Your task to perform on an android device: Clear all items from cart on newegg.com. Search for "asus zenbook" on newegg.com, select the first entry, add it to the cart, then select checkout. Image 0: 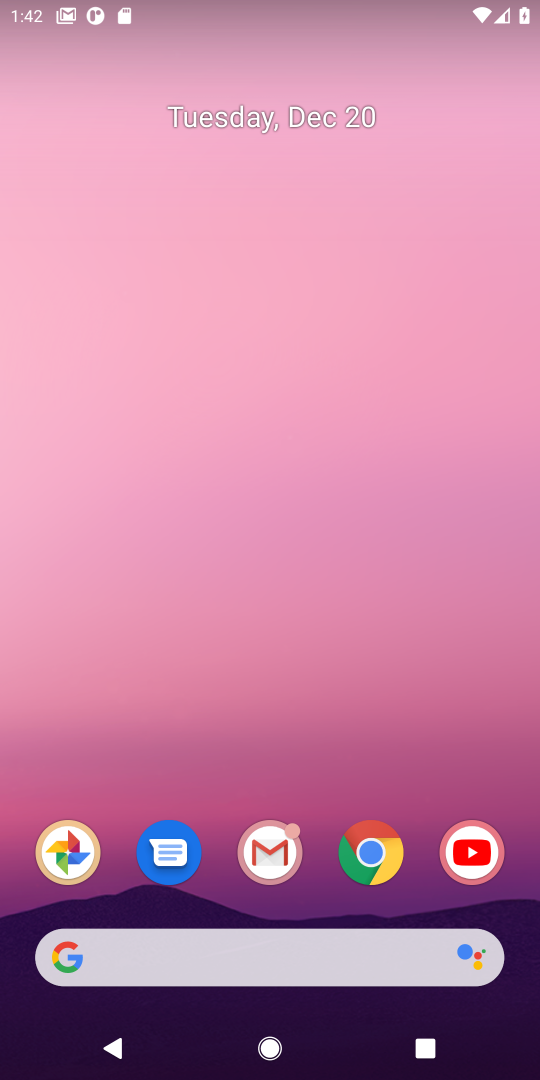
Step 0: click (372, 848)
Your task to perform on an android device: Clear all items from cart on newegg.com. Search for "asus zenbook" on newegg.com, select the first entry, add it to the cart, then select checkout. Image 1: 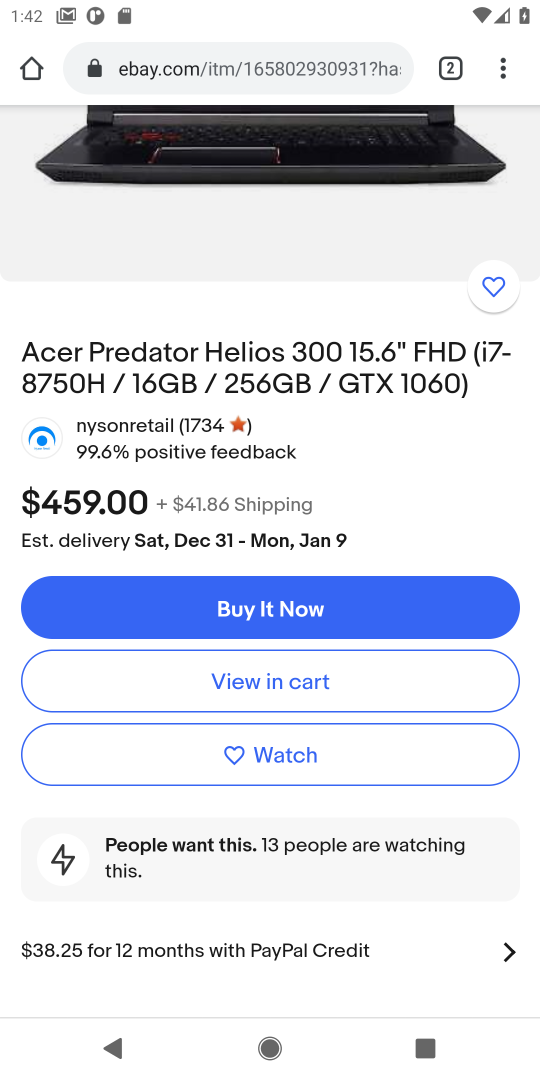
Step 1: click (176, 70)
Your task to perform on an android device: Clear all items from cart on newegg.com. Search for "asus zenbook" on newegg.com, select the first entry, add it to the cart, then select checkout. Image 2: 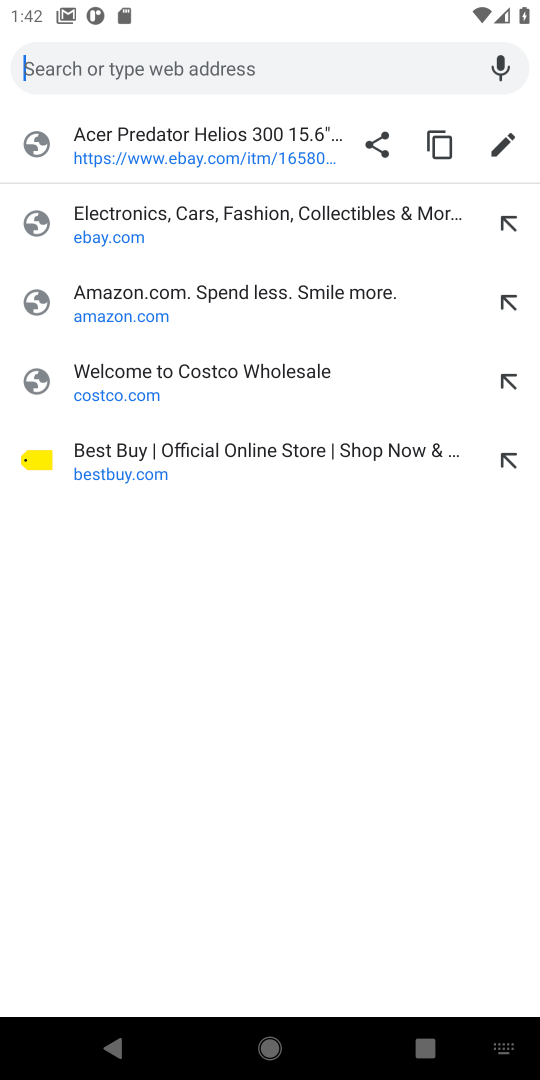
Step 2: type "newegg.com"
Your task to perform on an android device: Clear all items from cart on newegg.com. Search for "asus zenbook" on newegg.com, select the first entry, add it to the cart, then select checkout. Image 3: 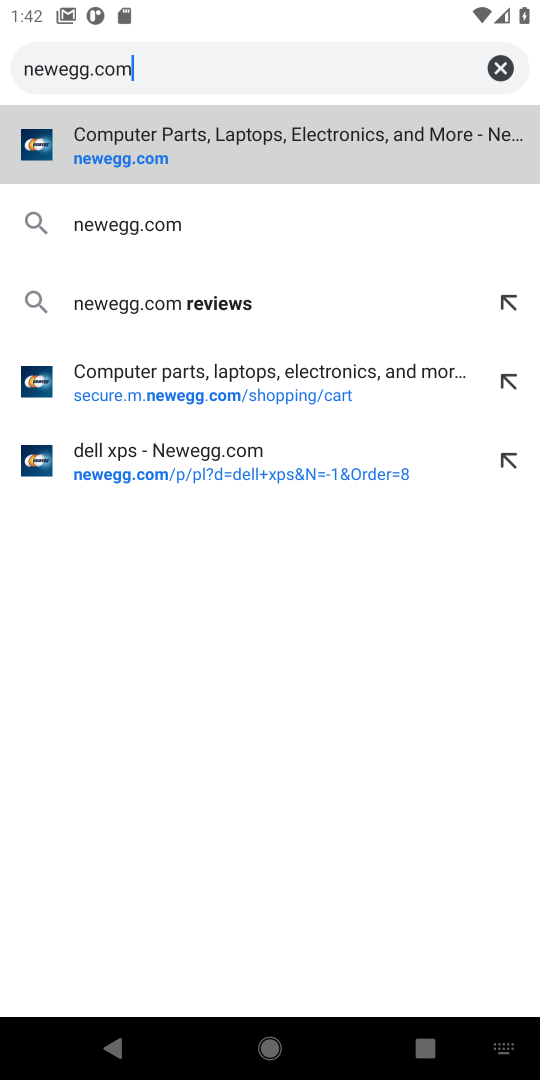
Step 3: click (102, 152)
Your task to perform on an android device: Clear all items from cart on newegg.com. Search for "asus zenbook" on newegg.com, select the first entry, add it to the cart, then select checkout. Image 4: 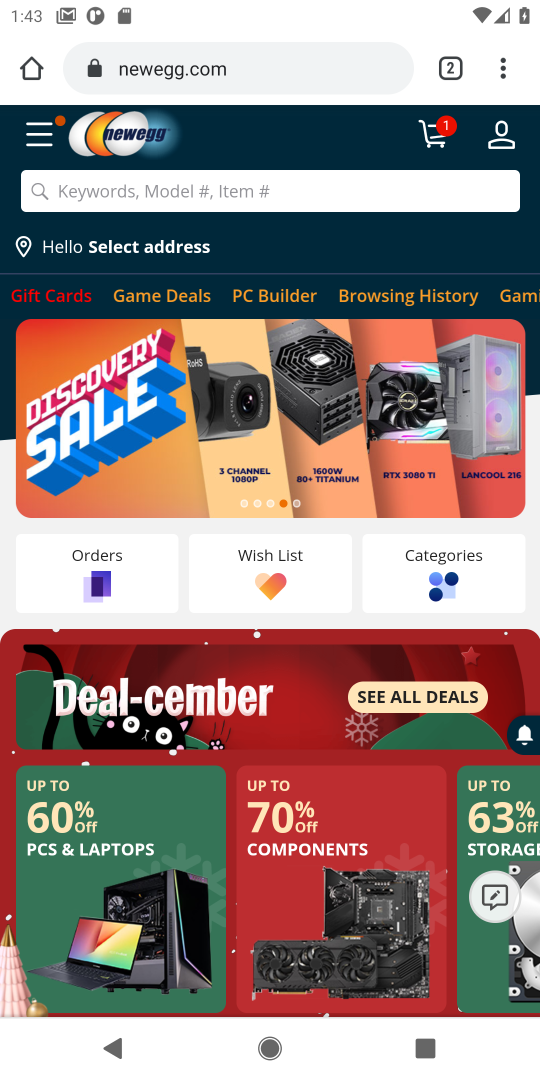
Step 4: click (436, 138)
Your task to perform on an android device: Clear all items from cart on newegg.com. Search for "asus zenbook" on newegg.com, select the first entry, add it to the cart, then select checkout. Image 5: 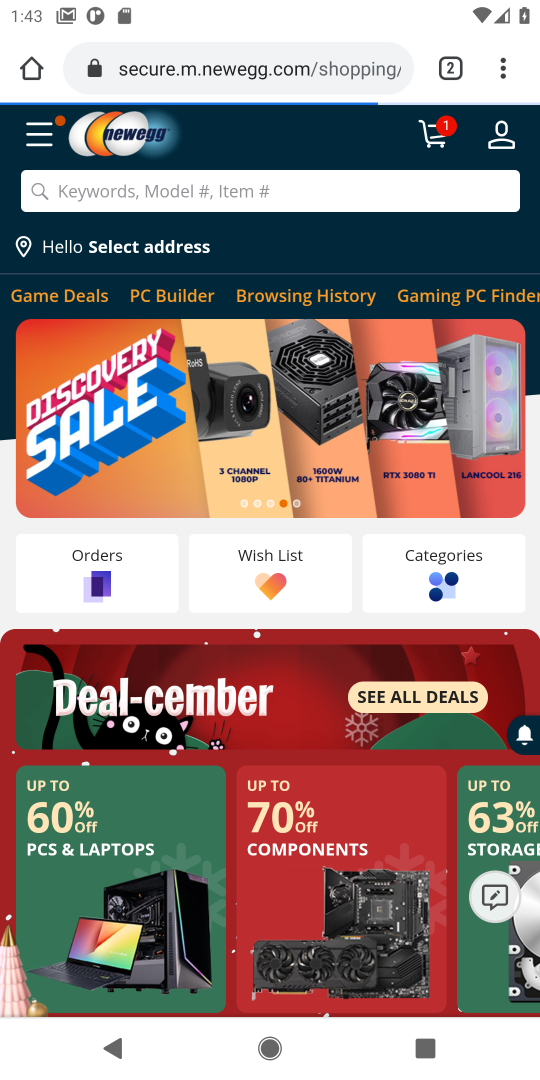
Step 5: click (436, 138)
Your task to perform on an android device: Clear all items from cart on newegg.com. Search for "asus zenbook" on newegg.com, select the first entry, add it to the cart, then select checkout. Image 6: 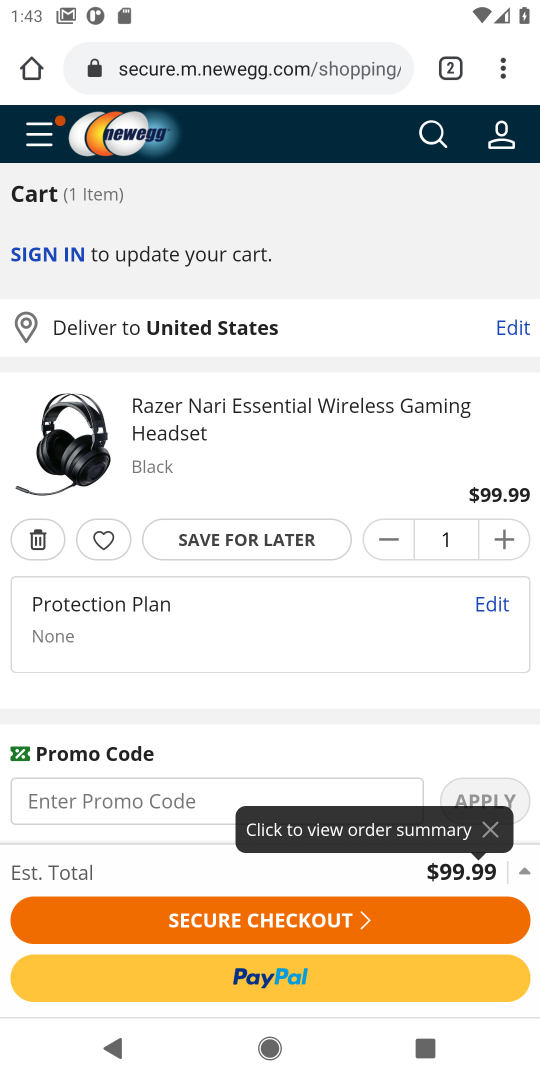
Step 6: click (36, 548)
Your task to perform on an android device: Clear all items from cart on newegg.com. Search for "asus zenbook" on newegg.com, select the first entry, add it to the cart, then select checkout. Image 7: 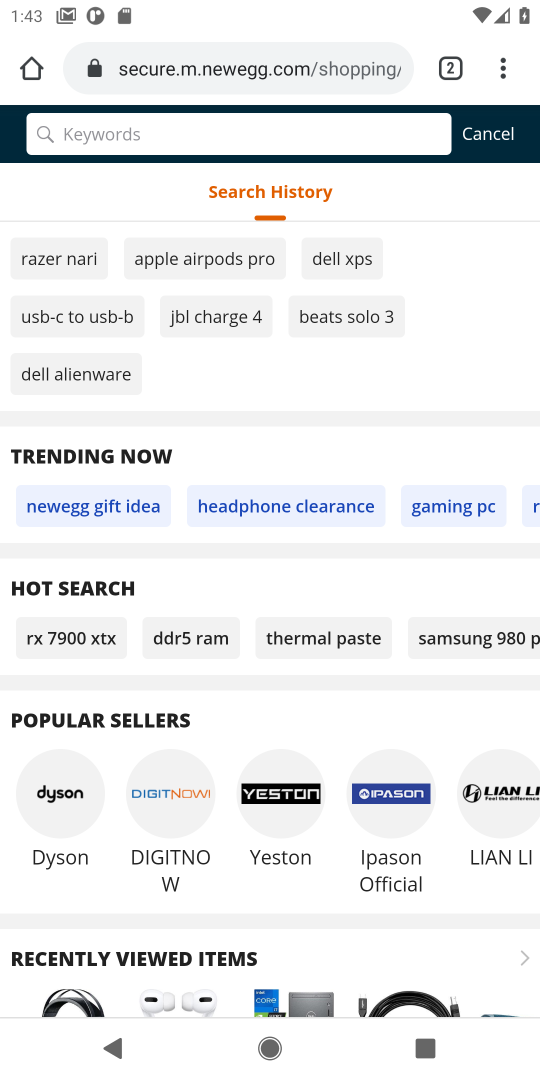
Step 7: click (136, 134)
Your task to perform on an android device: Clear all items from cart on newegg.com. Search for "asus zenbook" on newegg.com, select the first entry, add it to the cart, then select checkout. Image 8: 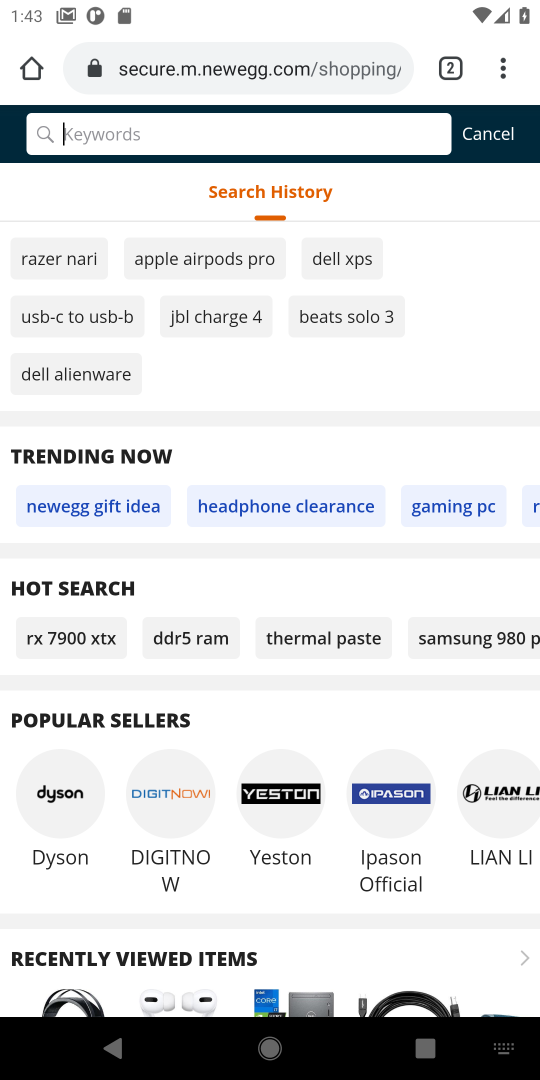
Step 8: type "asus zenbook"
Your task to perform on an android device: Clear all items from cart on newegg.com. Search for "asus zenbook" on newegg.com, select the first entry, add it to the cart, then select checkout. Image 9: 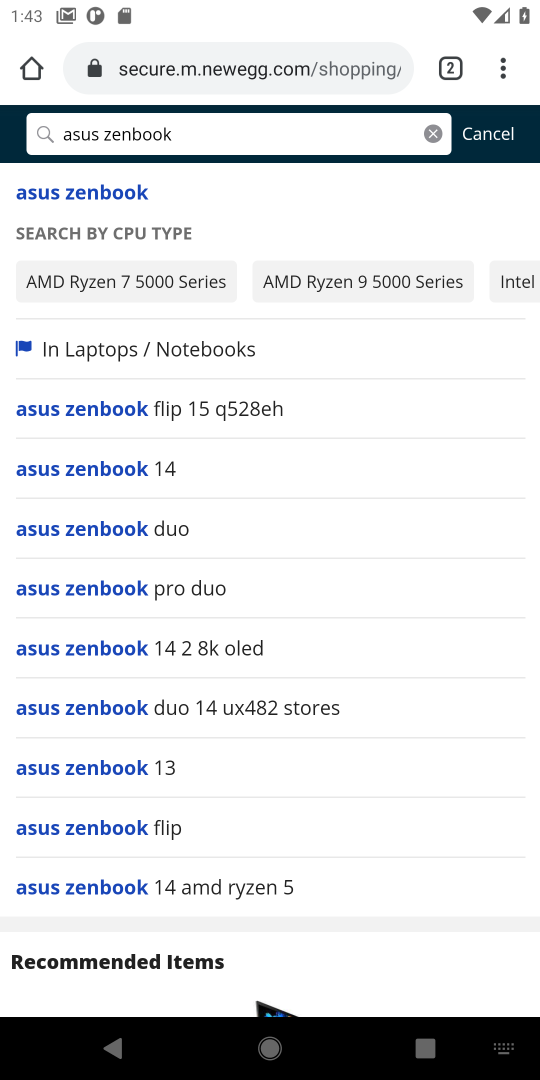
Step 9: click (92, 206)
Your task to perform on an android device: Clear all items from cart on newegg.com. Search for "asus zenbook" on newegg.com, select the first entry, add it to the cart, then select checkout. Image 10: 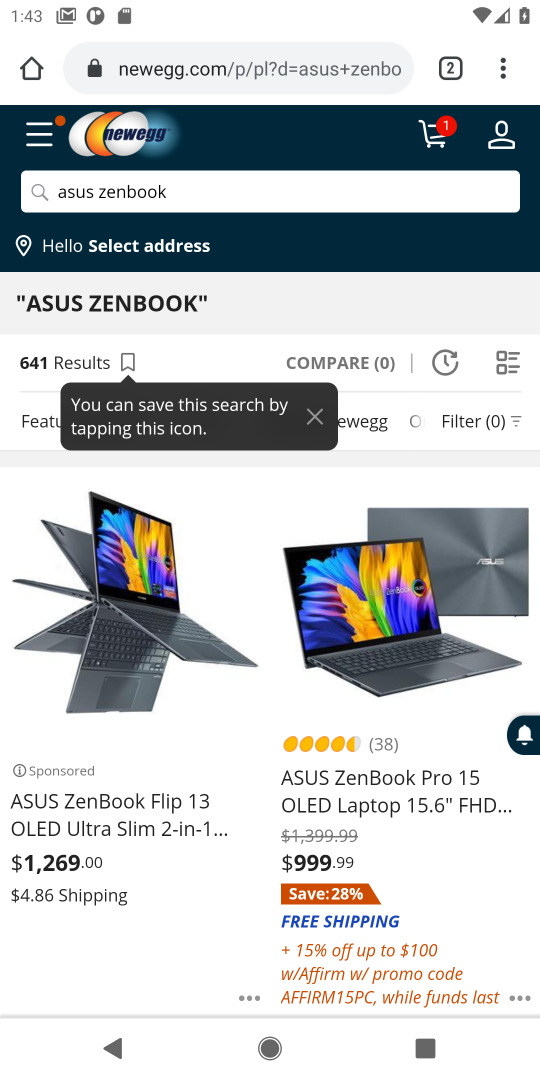
Step 10: drag from (102, 841) to (94, 702)
Your task to perform on an android device: Clear all items from cart on newegg.com. Search for "asus zenbook" on newegg.com, select the first entry, add it to the cart, then select checkout. Image 11: 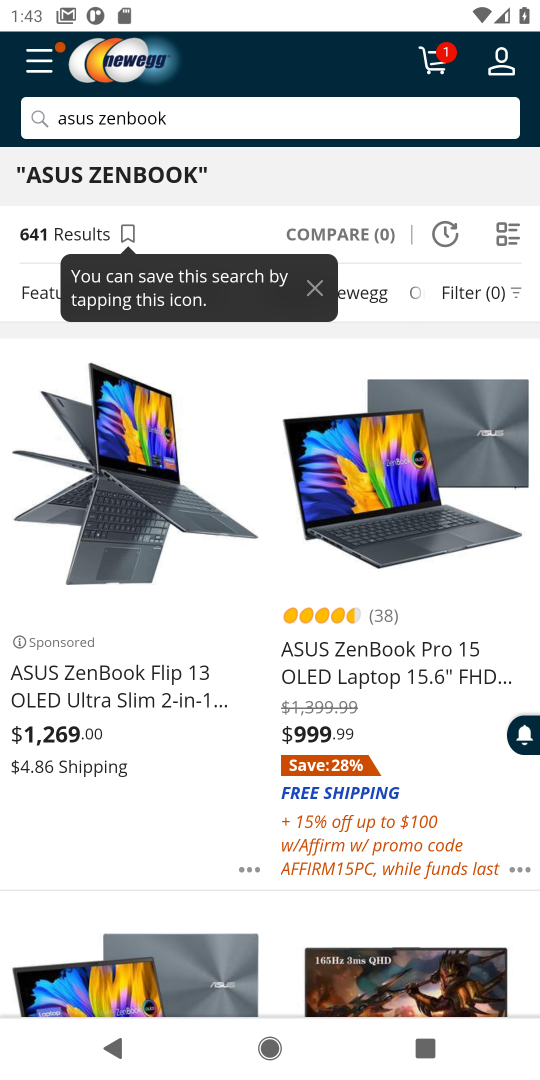
Step 11: click (436, 63)
Your task to perform on an android device: Clear all items from cart on newegg.com. Search for "asus zenbook" on newegg.com, select the first entry, add it to the cart, then select checkout. Image 12: 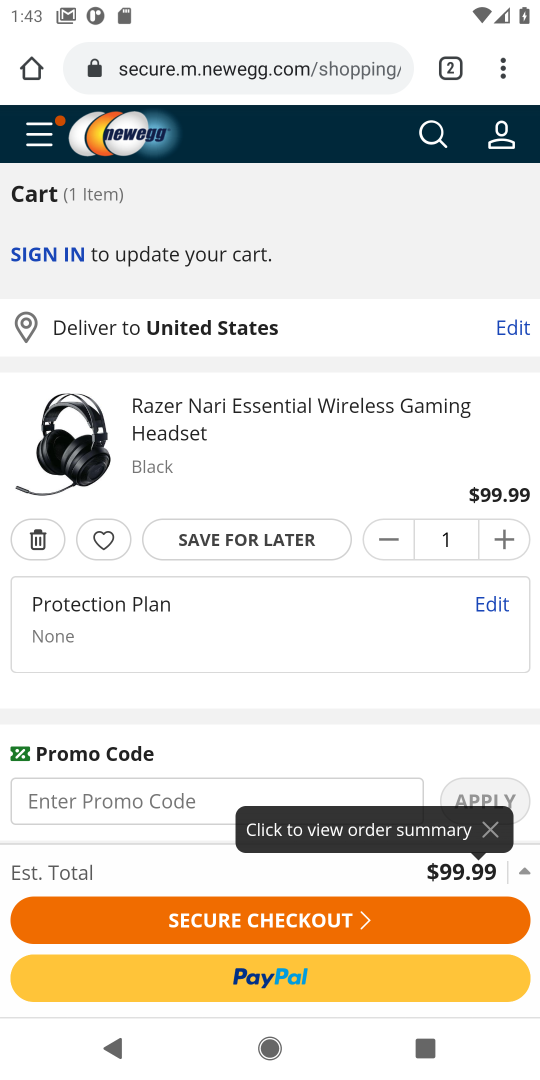
Step 12: click (44, 541)
Your task to perform on an android device: Clear all items from cart on newegg.com. Search for "asus zenbook" on newegg.com, select the first entry, add it to the cart, then select checkout. Image 13: 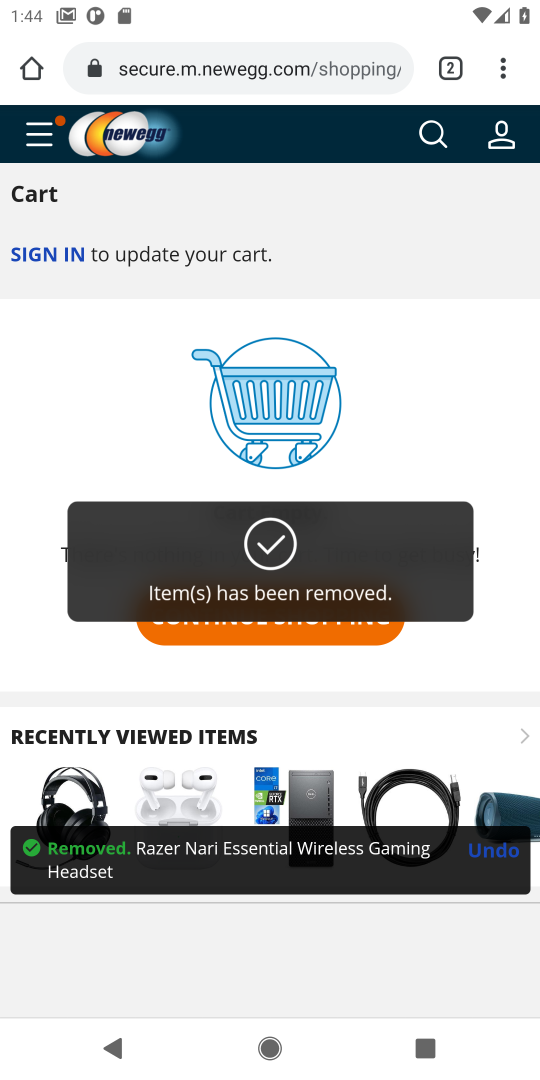
Step 13: click (423, 144)
Your task to perform on an android device: Clear all items from cart on newegg.com. Search for "asus zenbook" on newegg.com, select the first entry, add it to the cart, then select checkout. Image 14: 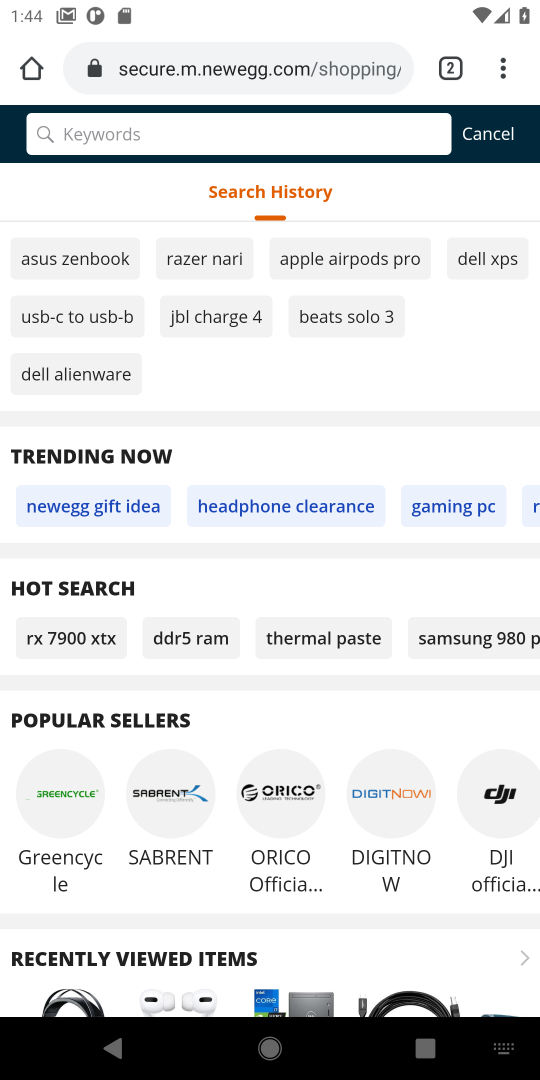
Step 14: type "asus zenbook"
Your task to perform on an android device: Clear all items from cart on newegg.com. Search for "asus zenbook" on newegg.com, select the first entry, add it to the cart, then select checkout. Image 15: 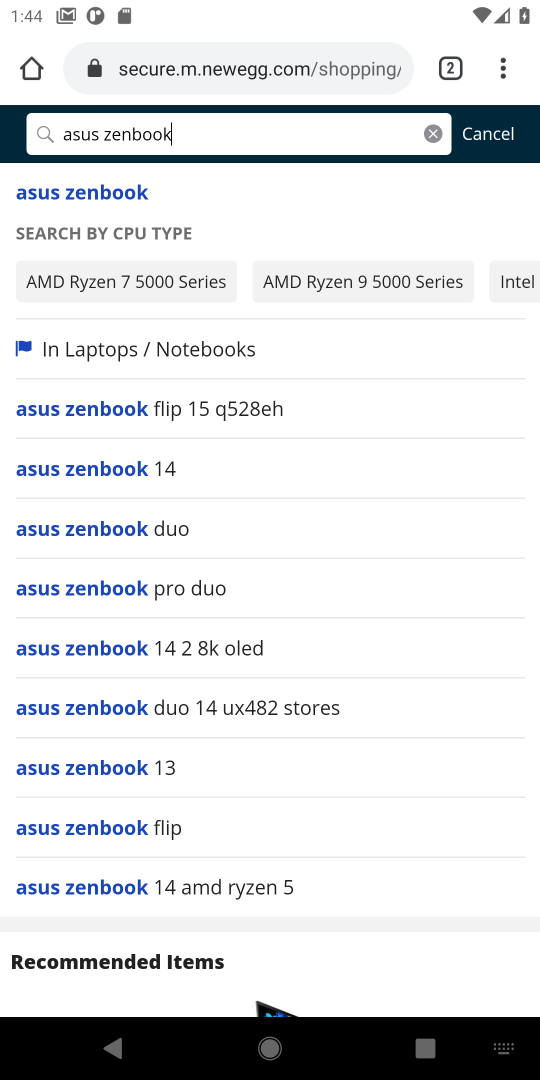
Step 15: click (53, 201)
Your task to perform on an android device: Clear all items from cart on newegg.com. Search for "asus zenbook" on newegg.com, select the first entry, add it to the cart, then select checkout. Image 16: 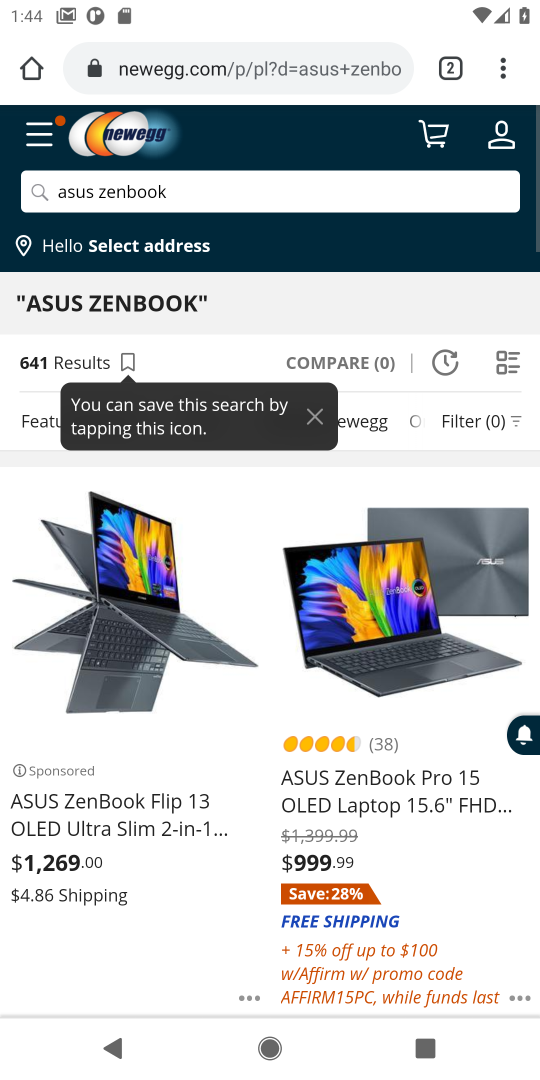
Step 16: click (61, 811)
Your task to perform on an android device: Clear all items from cart on newegg.com. Search for "asus zenbook" on newegg.com, select the first entry, add it to the cart, then select checkout. Image 17: 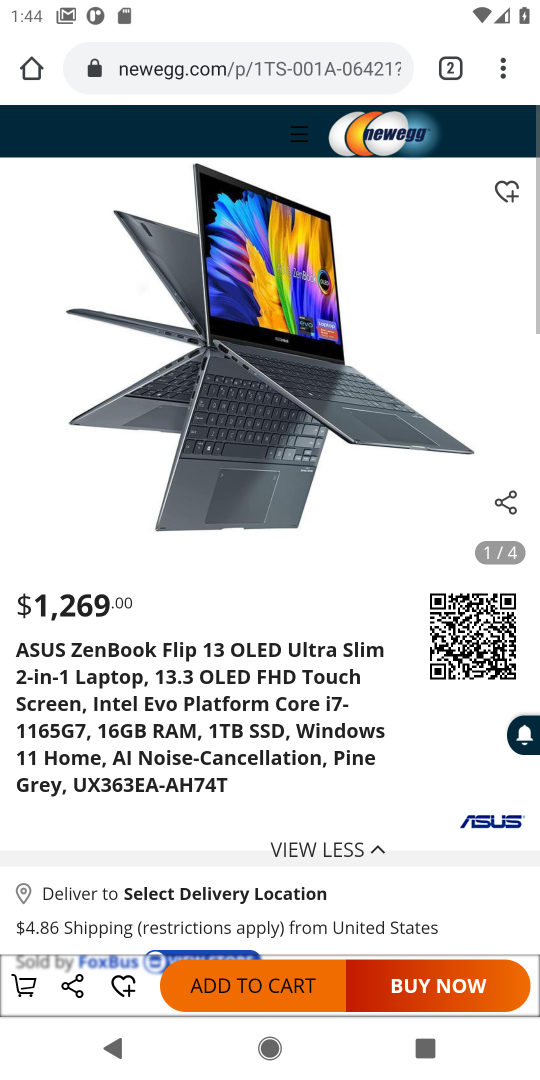
Step 17: click (210, 974)
Your task to perform on an android device: Clear all items from cart on newegg.com. Search for "asus zenbook" on newegg.com, select the first entry, add it to the cart, then select checkout. Image 18: 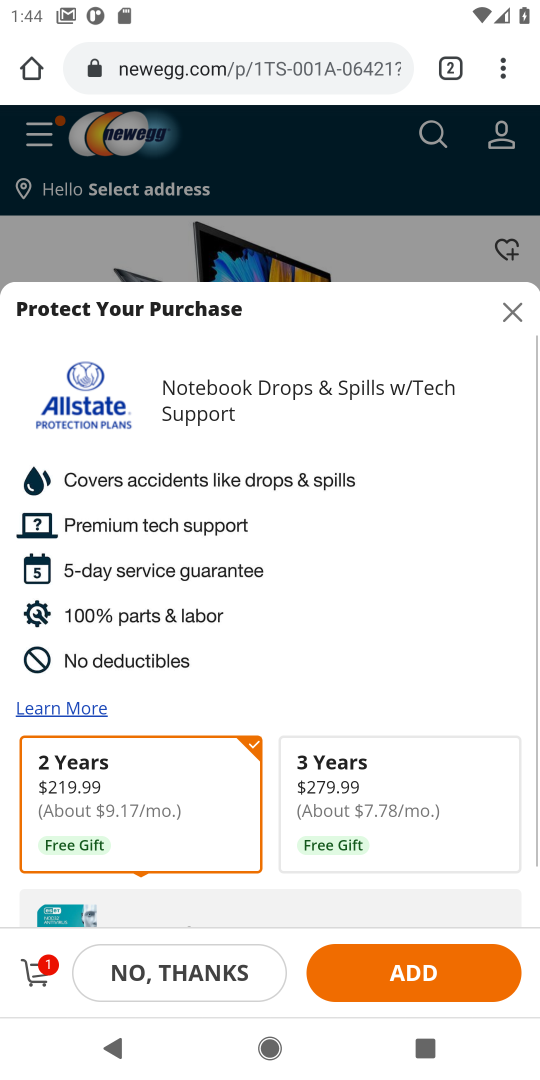
Step 18: click (38, 978)
Your task to perform on an android device: Clear all items from cart on newegg.com. Search for "asus zenbook" on newegg.com, select the first entry, add it to the cart, then select checkout. Image 19: 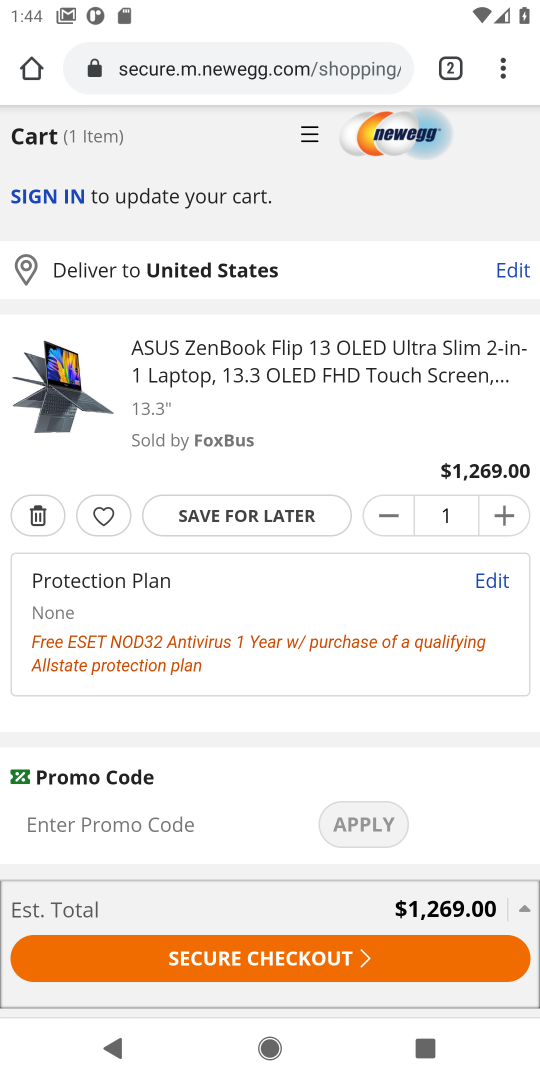
Step 19: click (254, 960)
Your task to perform on an android device: Clear all items from cart on newegg.com. Search for "asus zenbook" on newegg.com, select the first entry, add it to the cart, then select checkout. Image 20: 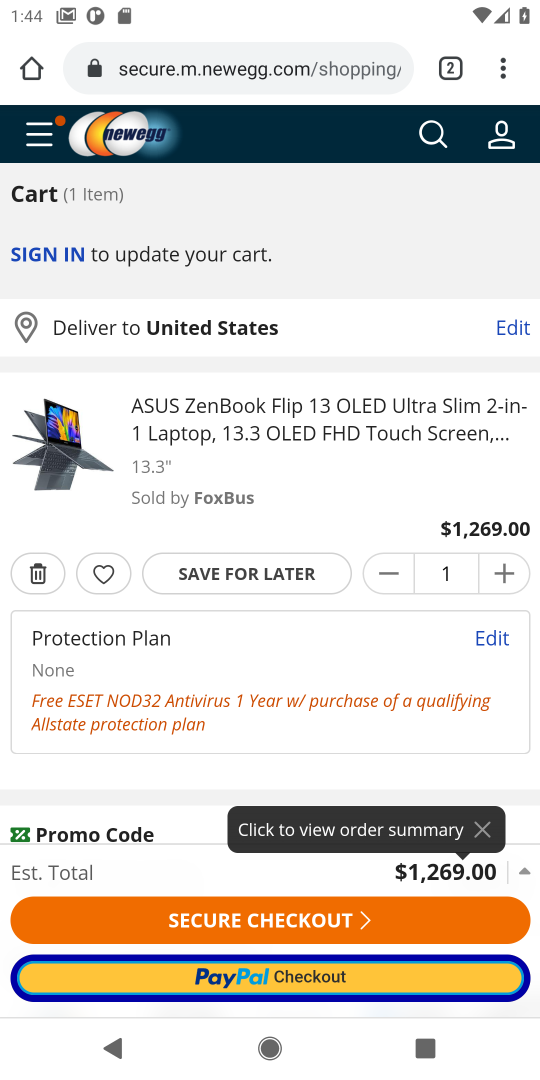
Step 20: click (231, 914)
Your task to perform on an android device: Clear all items from cart on newegg.com. Search for "asus zenbook" on newegg.com, select the first entry, add it to the cart, then select checkout. Image 21: 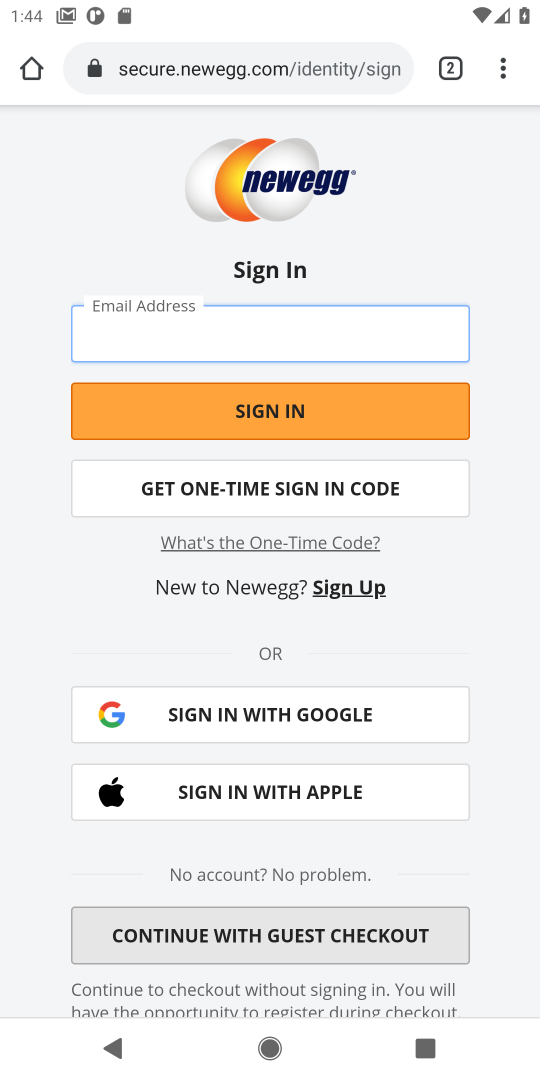
Step 21: task complete